Your task to perform on an android device: Open the web browser Image 0: 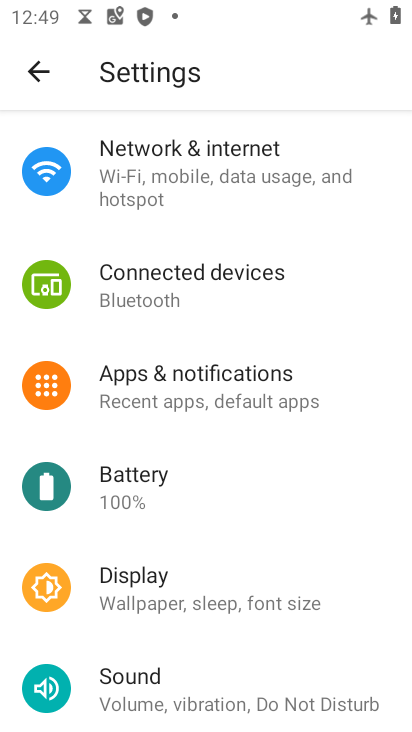
Step 0: press home button
Your task to perform on an android device: Open the web browser Image 1: 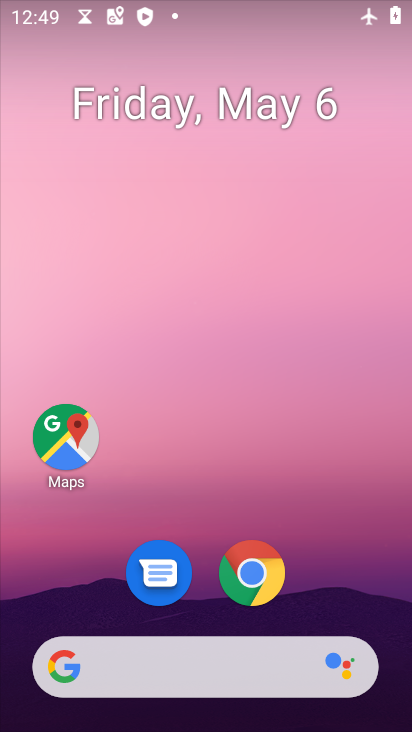
Step 1: drag from (317, 438) to (317, 283)
Your task to perform on an android device: Open the web browser Image 2: 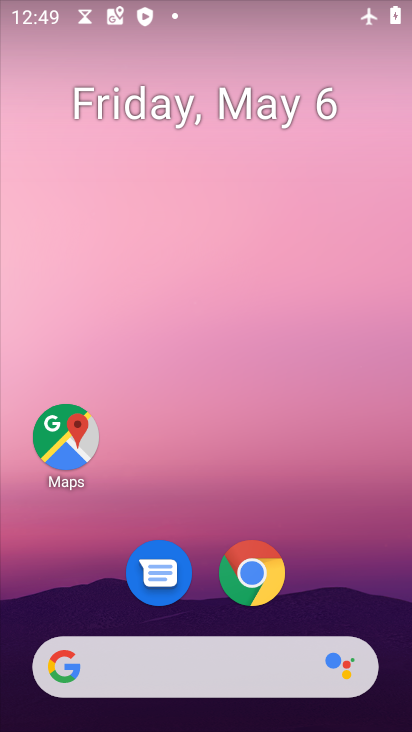
Step 2: drag from (342, 591) to (321, 271)
Your task to perform on an android device: Open the web browser Image 3: 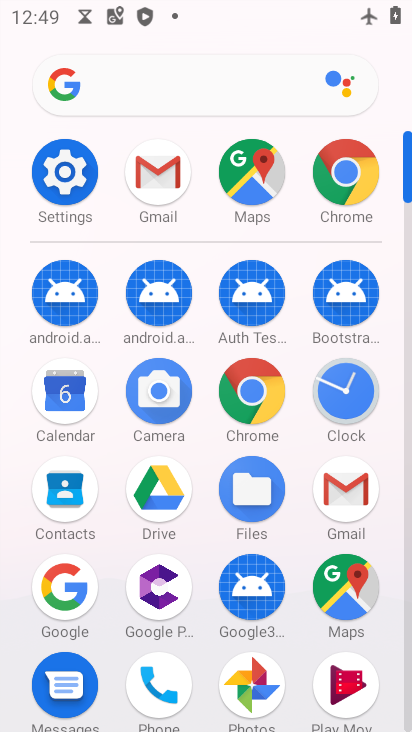
Step 3: click (255, 397)
Your task to perform on an android device: Open the web browser Image 4: 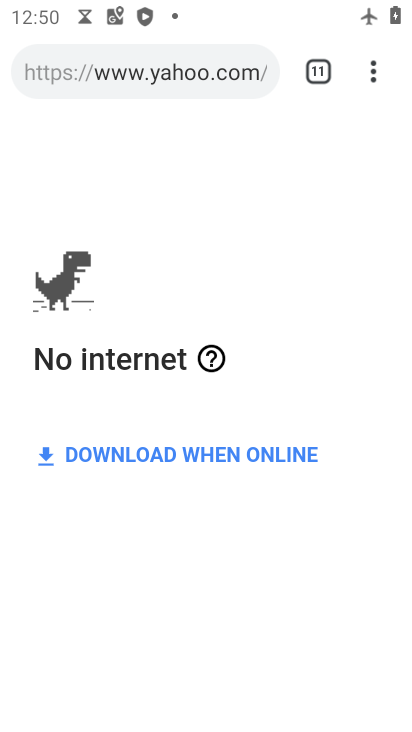
Step 4: task complete